Your task to perform on an android device: Open CNN.com Image 0: 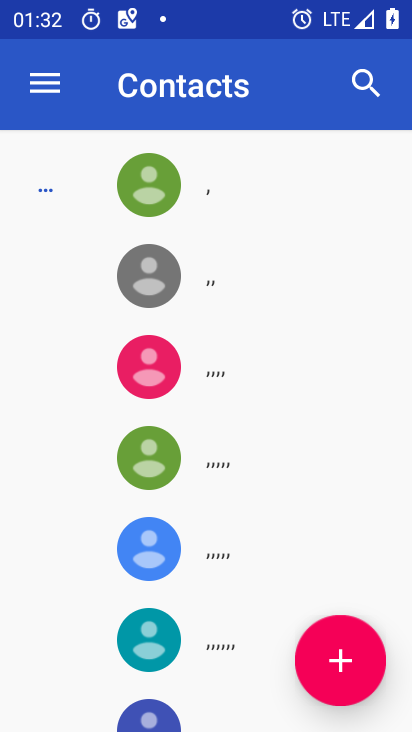
Step 0: press home button
Your task to perform on an android device: Open CNN.com Image 1: 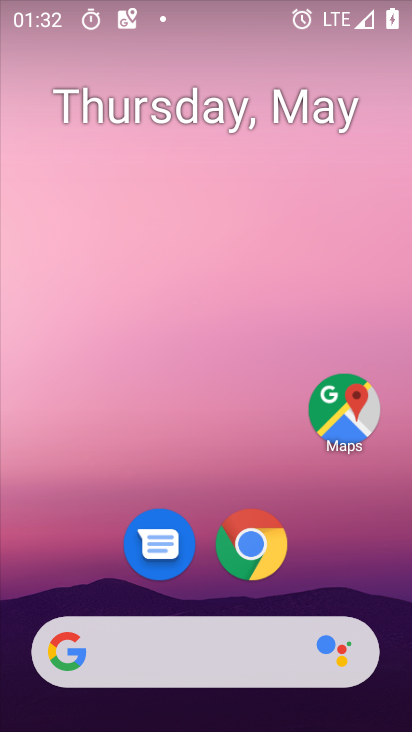
Step 1: drag from (340, 555) to (342, 138)
Your task to perform on an android device: Open CNN.com Image 2: 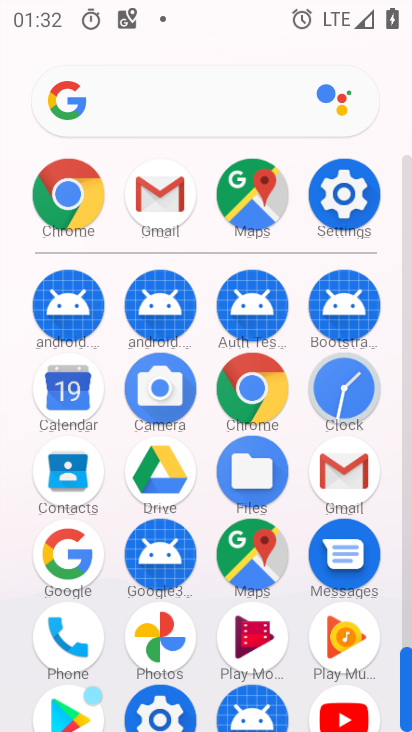
Step 2: click (264, 397)
Your task to perform on an android device: Open CNN.com Image 3: 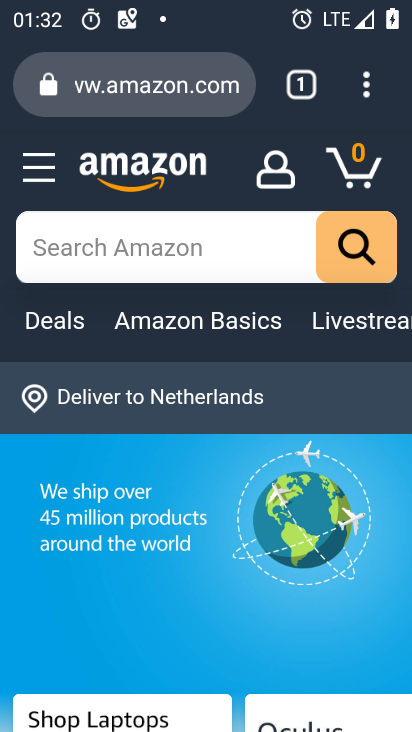
Step 3: press back button
Your task to perform on an android device: Open CNN.com Image 4: 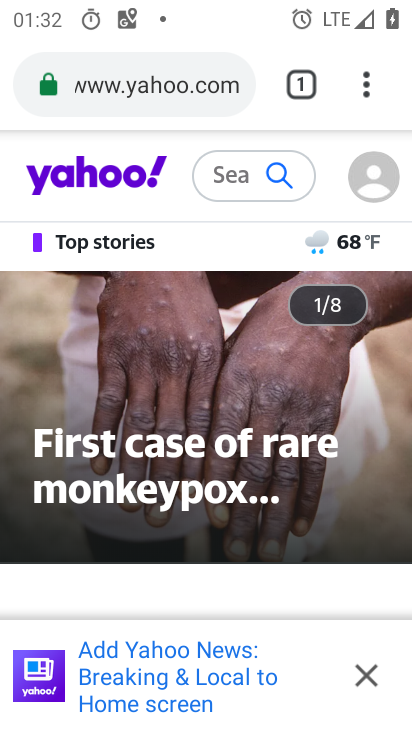
Step 4: press back button
Your task to perform on an android device: Open CNN.com Image 5: 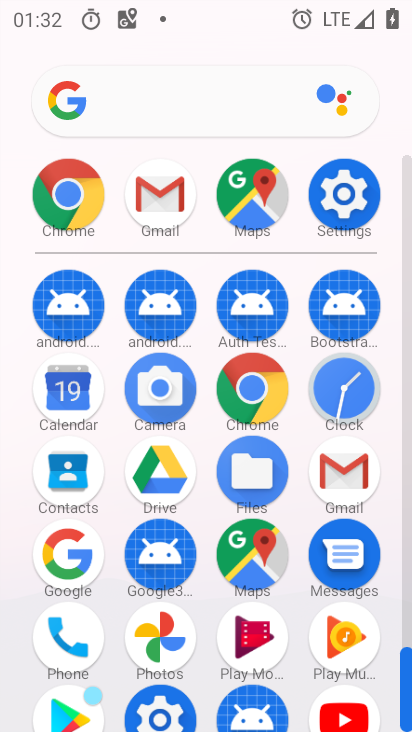
Step 5: click (261, 398)
Your task to perform on an android device: Open CNN.com Image 6: 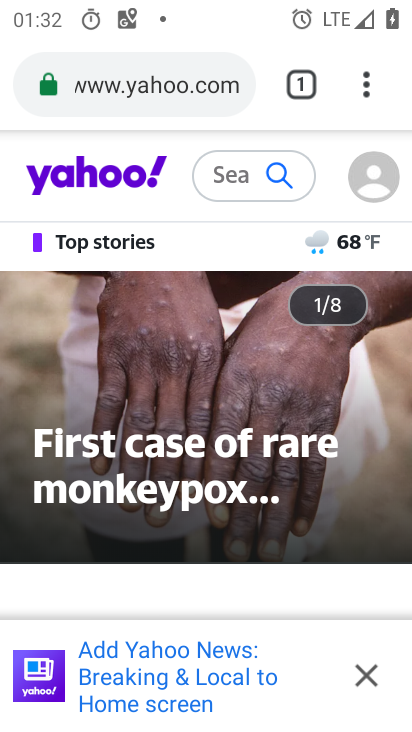
Step 6: click (140, 85)
Your task to perform on an android device: Open CNN.com Image 7: 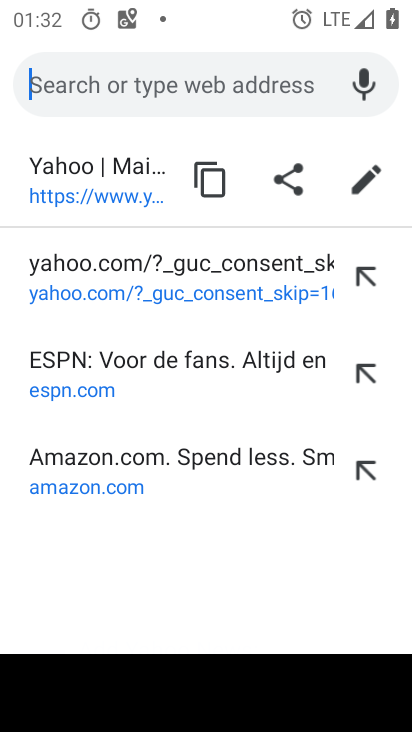
Step 7: type "cnn.com"
Your task to perform on an android device: Open CNN.com Image 8: 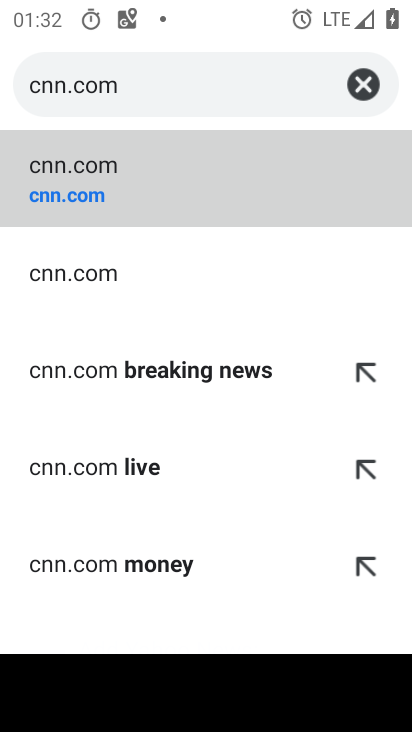
Step 8: click (70, 204)
Your task to perform on an android device: Open CNN.com Image 9: 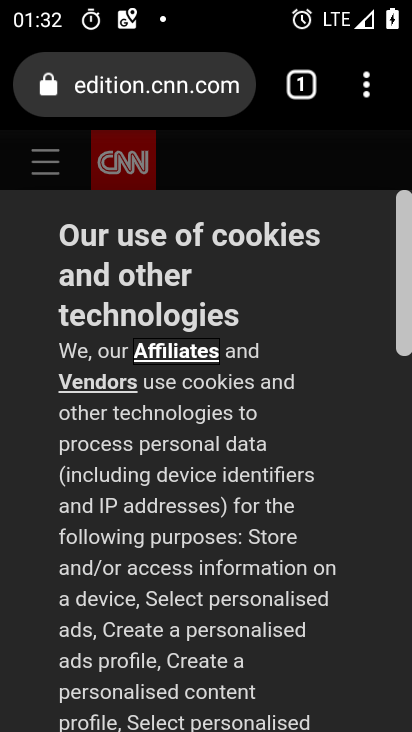
Step 9: task complete